Your task to perform on an android device: find which apps use the phone's location Image 0: 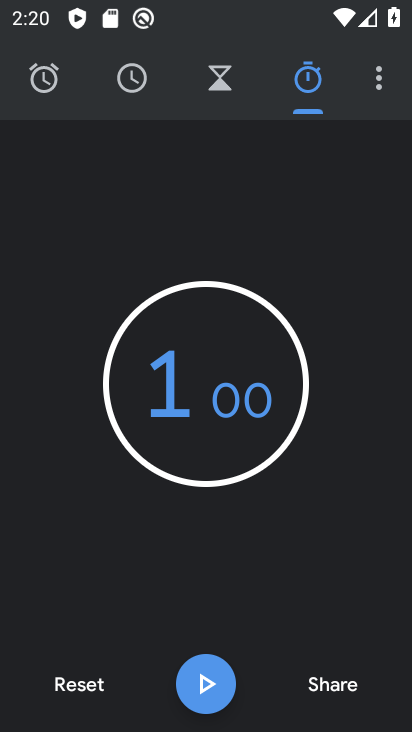
Step 0: press home button
Your task to perform on an android device: find which apps use the phone's location Image 1: 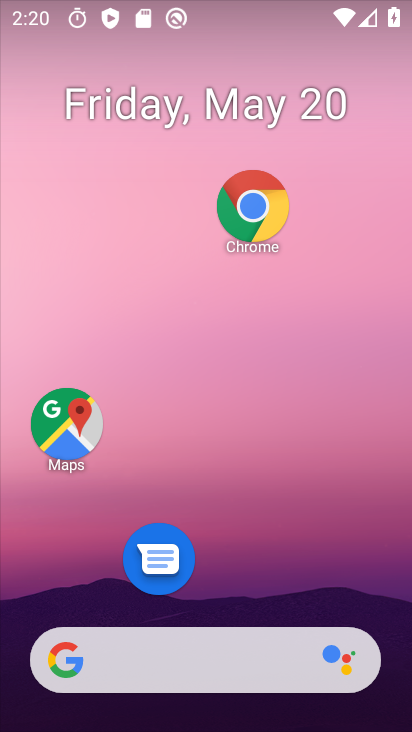
Step 1: drag from (198, 613) to (258, 6)
Your task to perform on an android device: find which apps use the phone's location Image 2: 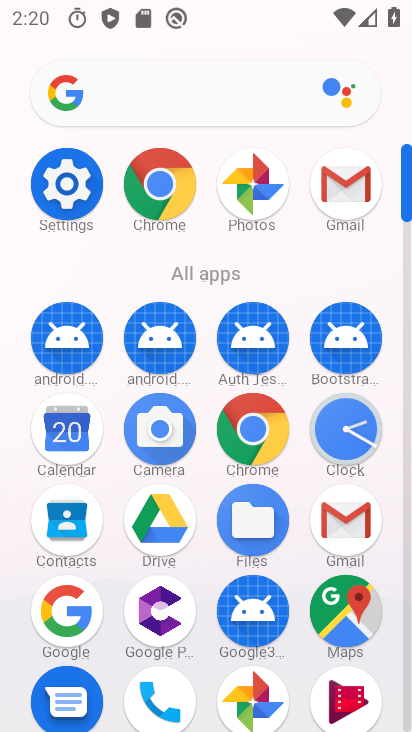
Step 2: click (69, 178)
Your task to perform on an android device: find which apps use the phone's location Image 3: 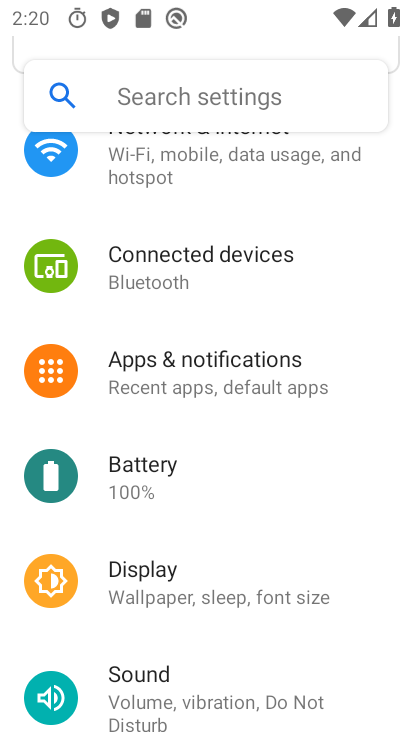
Step 3: drag from (176, 635) to (150, 66)
Your task to perform on an android device: find which apps use the phone's location Image 4: 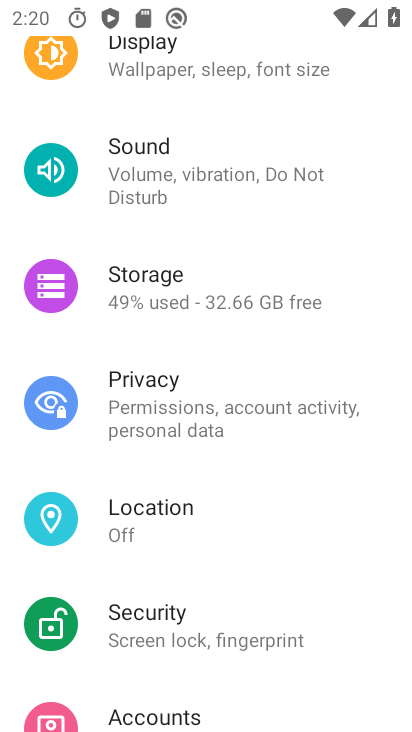
Step 4: click (185, 517)
Your task to perform on an android device: find which apps use the phone's location Image 5: 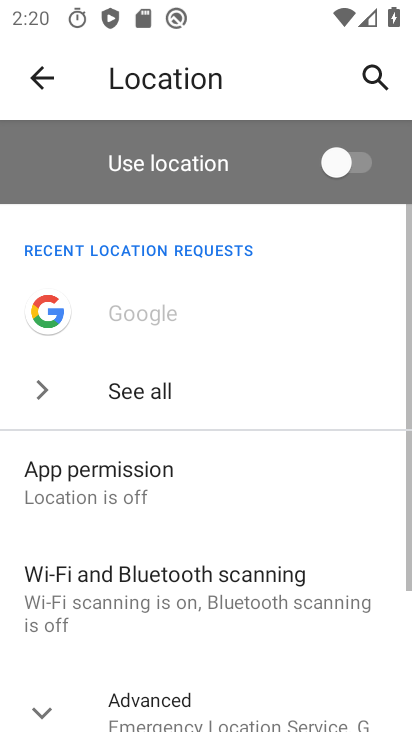
Step 5: click (176, 512)
Your task to perform on an android device: find which apps use the phone's location Image 6: 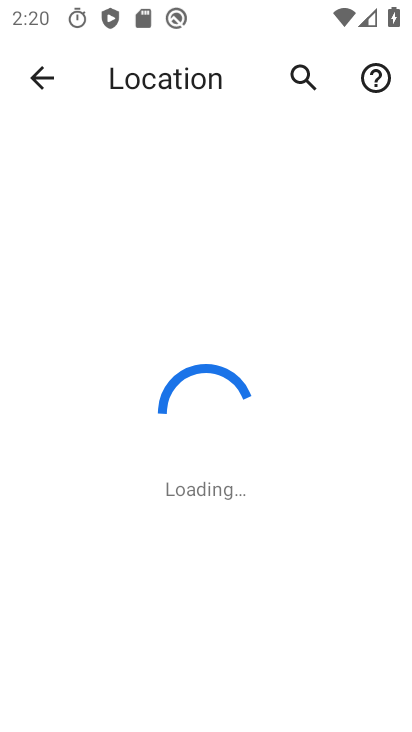
Step 6: task complete